Your task to perform on an android device: turn off wifi Image 0: 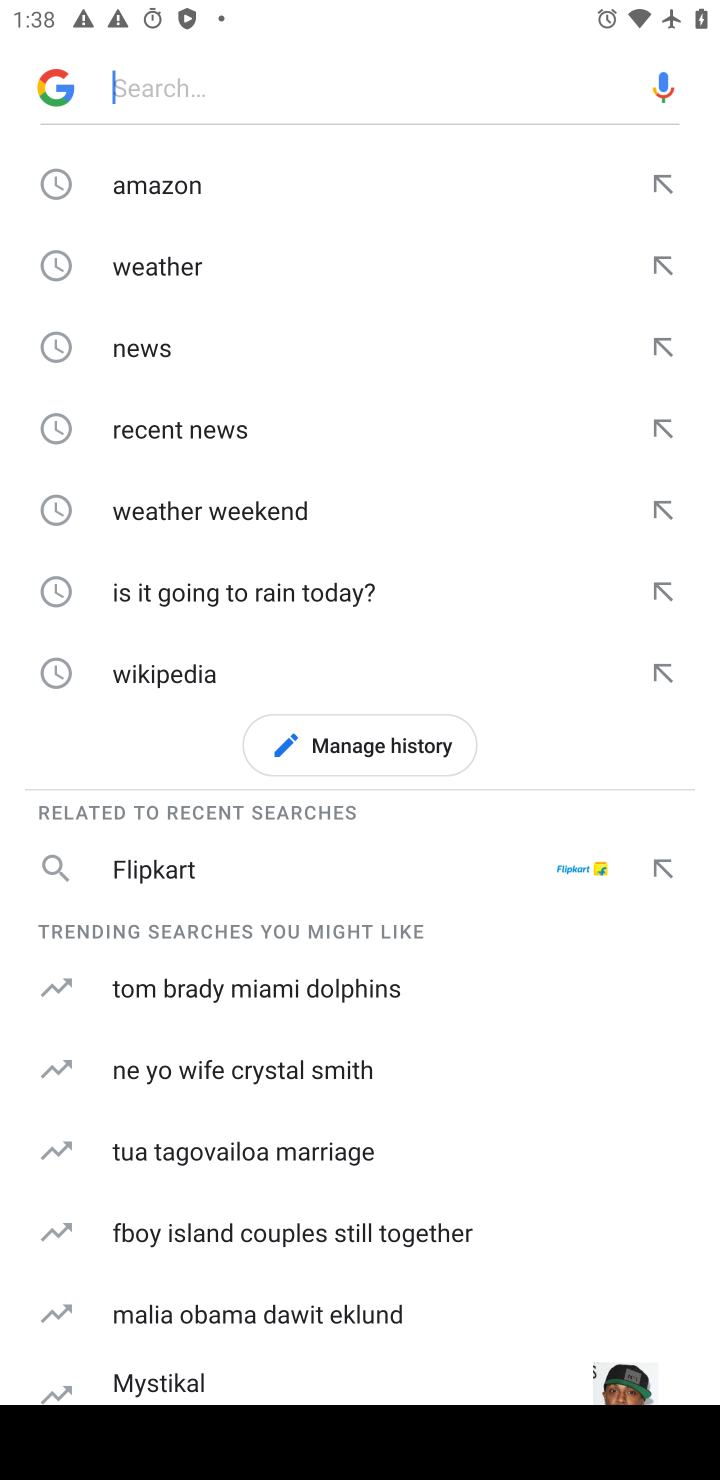
Step 0: press home button
Your task to perform on an android device: turn off wifi Image 1: 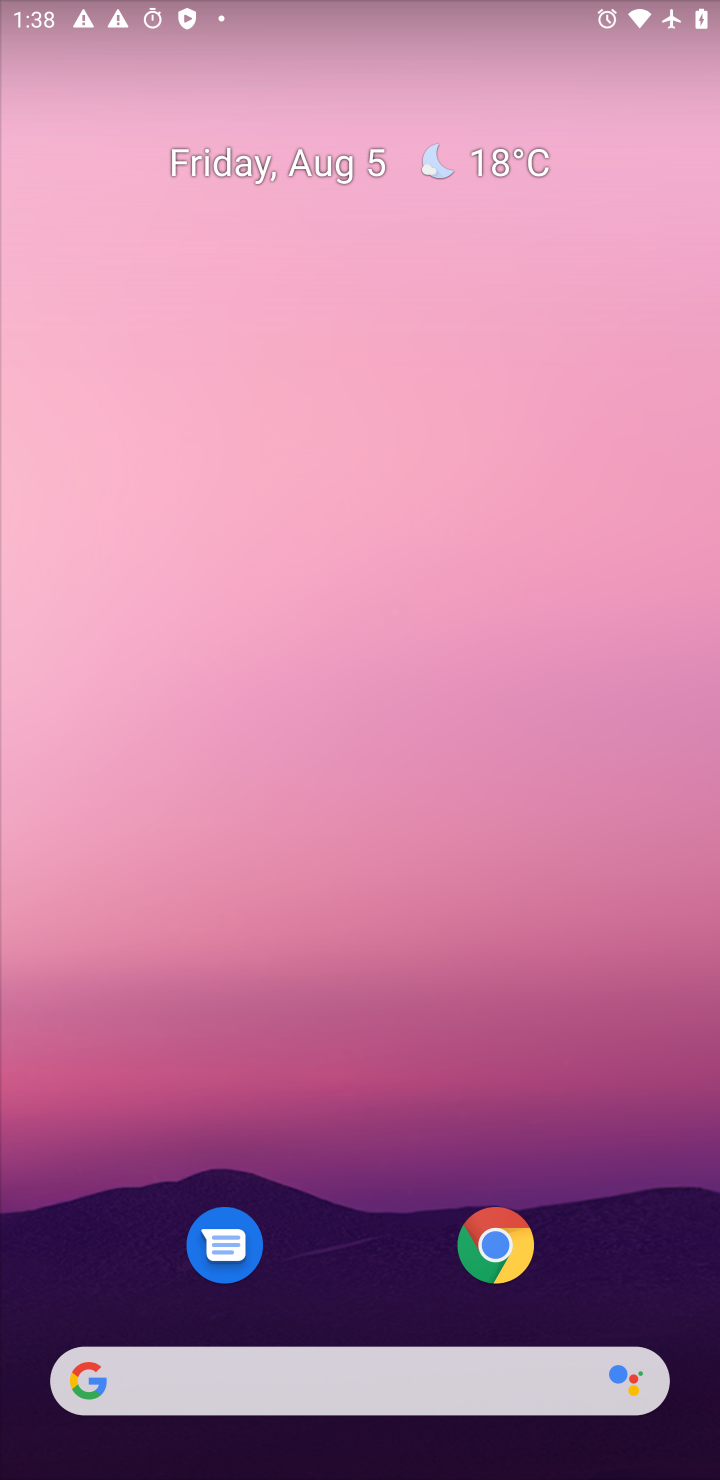
Step 1: drag from (341, 13) to (451, 744)
Your task to perform on an android device: turn off wifi Image 2: 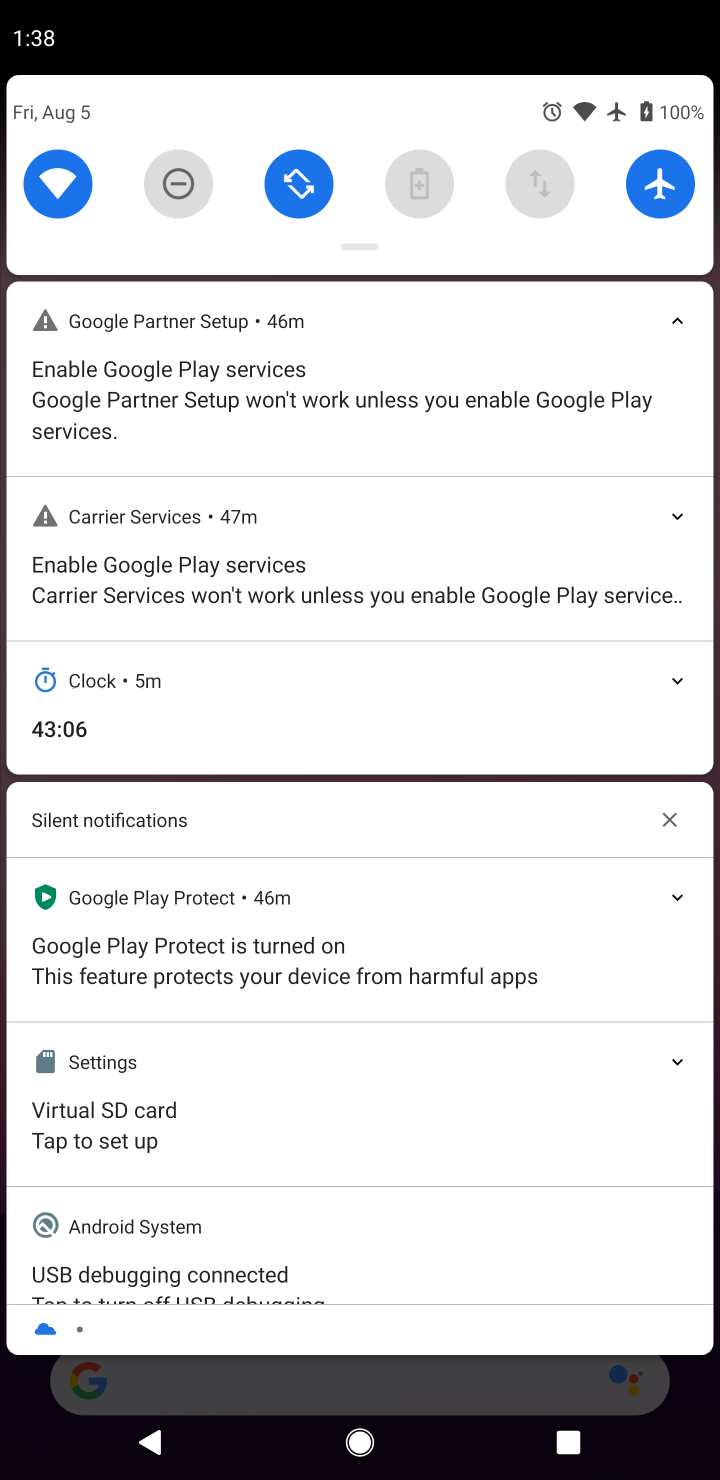
Step 2: click (47, 180)
Your task to perform on an android device: turn off wifi Image 3: 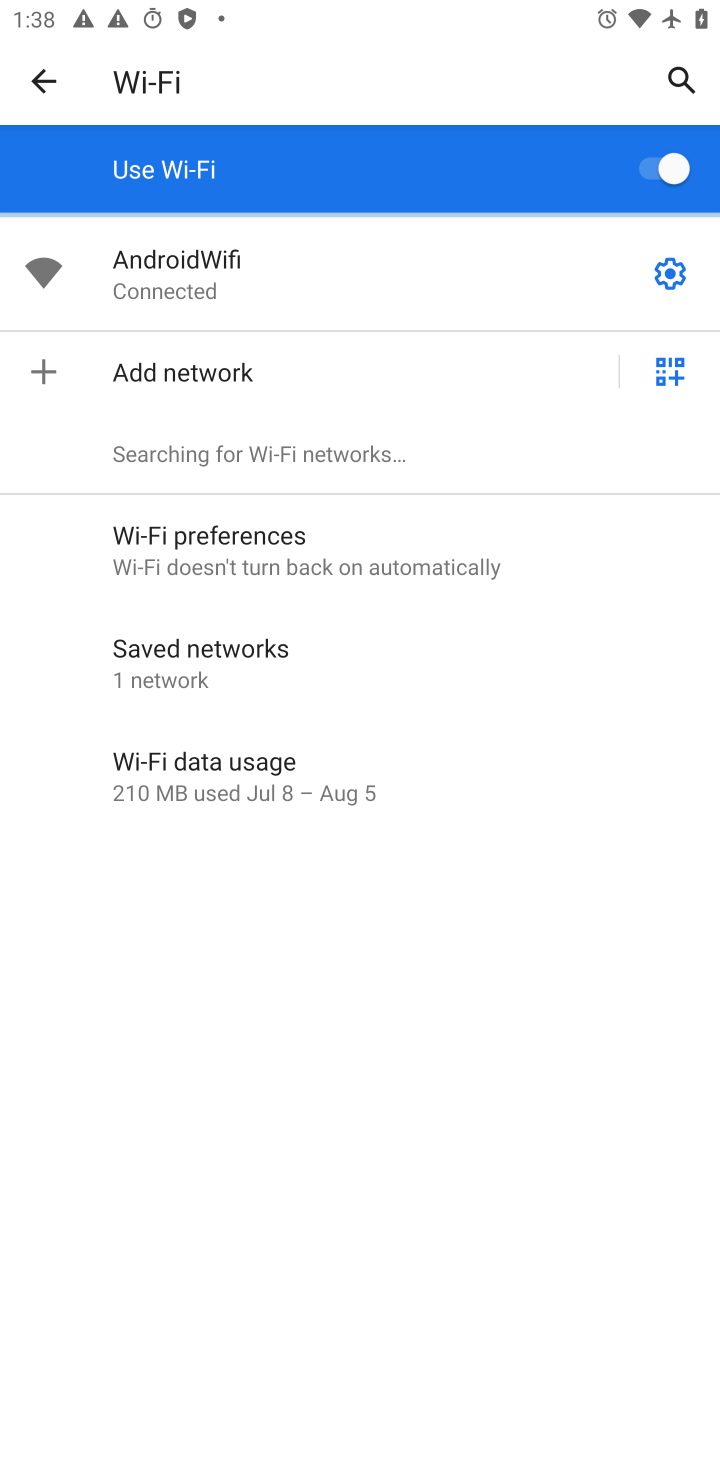
Step 3: click (677, 158)
Your task to perform on an android device: turn off wifi Image 4: 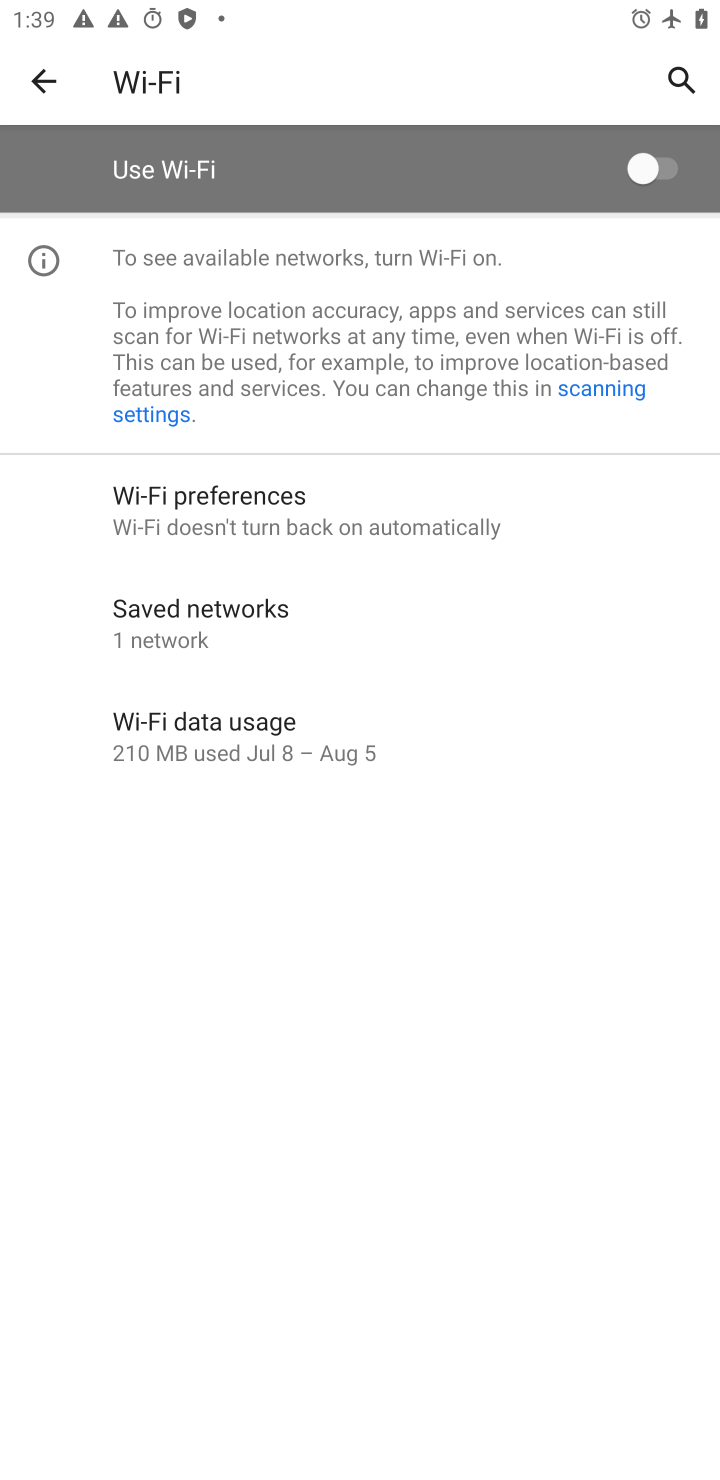
Step 4: task complete